Your task to perform on an android device: Open wifi settings Image 0: 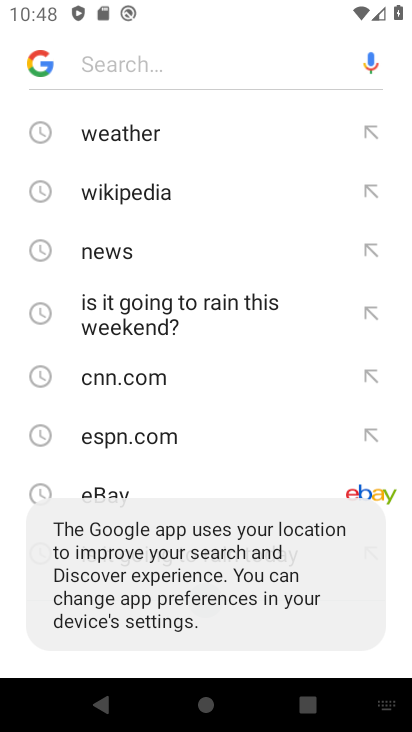
Step 0: press home button
Your task to perform on an android device: Open wifi settings Image 1: 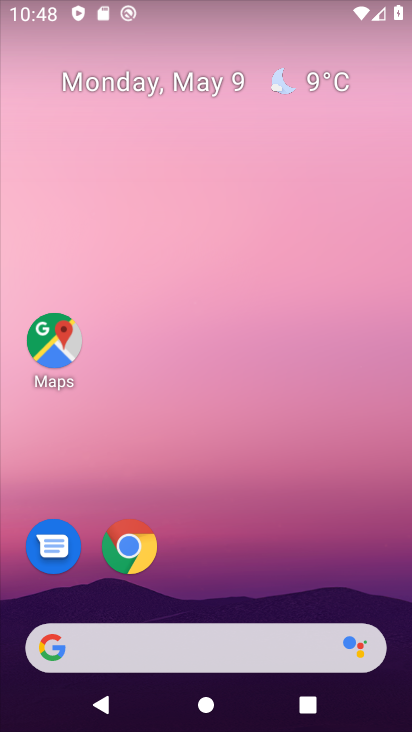
Step 1: drag from (232, 724) to (235, 274)
Your task to perform on an android device: Open wifi settings Image 2: 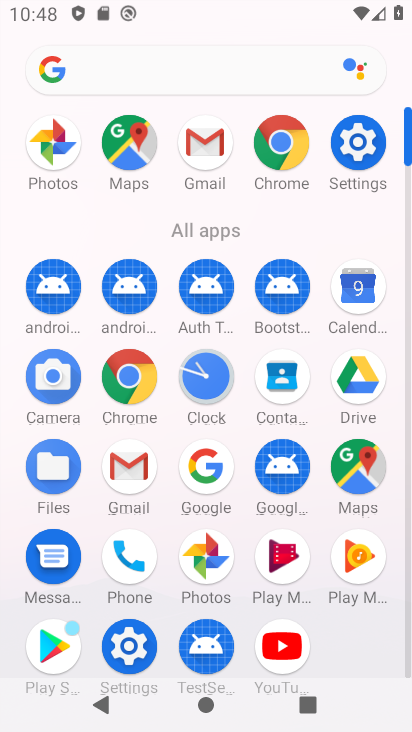
Step 2: click (357, 137)
Your task to perform on an android device: Open wifi settings Image 3: 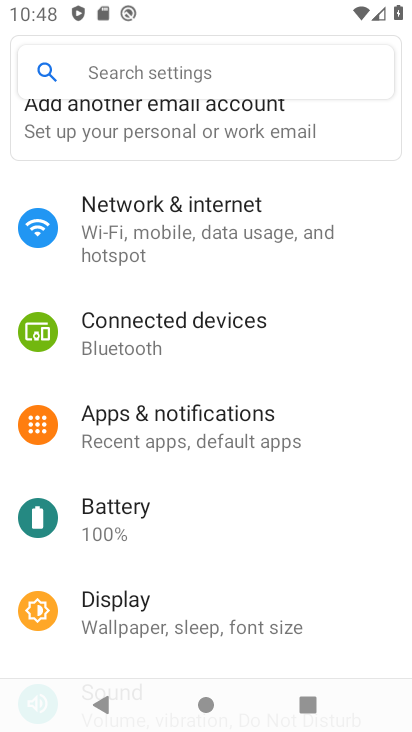
Step 3: click (140, 219)
Your task to perform on an android device: Open wifi settings Image 4: 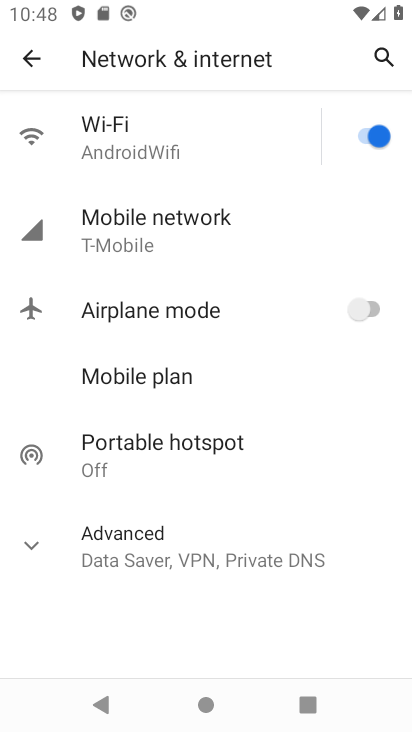
Step 4: click (117, 137)
Your task to perform on an android device: Open wifi settings Image 5: 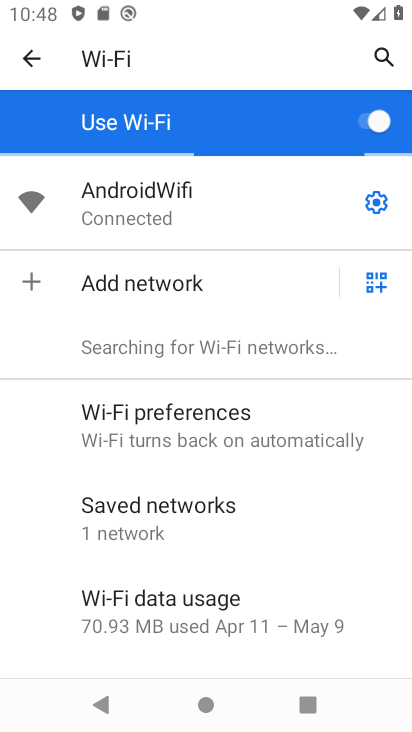
Step 5: task complete